Your task to perform on an android device: Open Google Chrome Image 0: 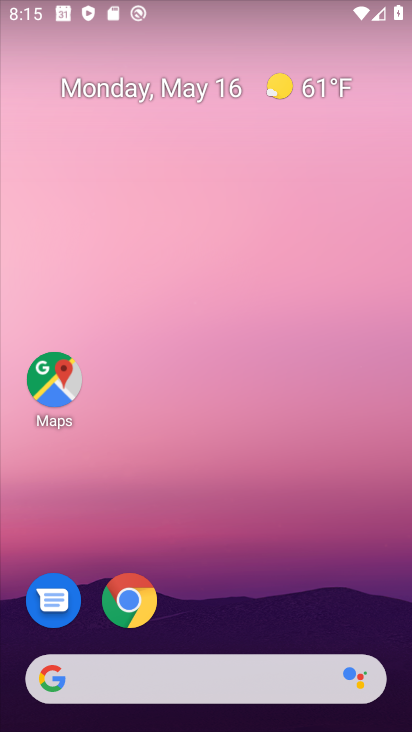
Step 0: click (126, 598)
Your task to perform on an android device: Open Google Chrome Image 1: 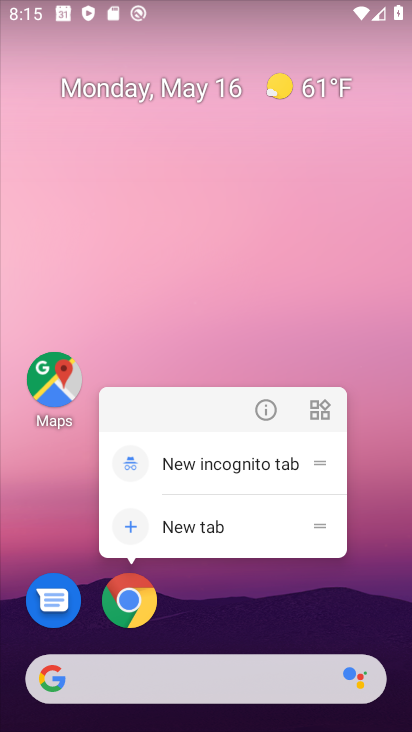
Step 1: click (123, 591)
Your task to perform on an android device: Open Google Chrome Image 2: 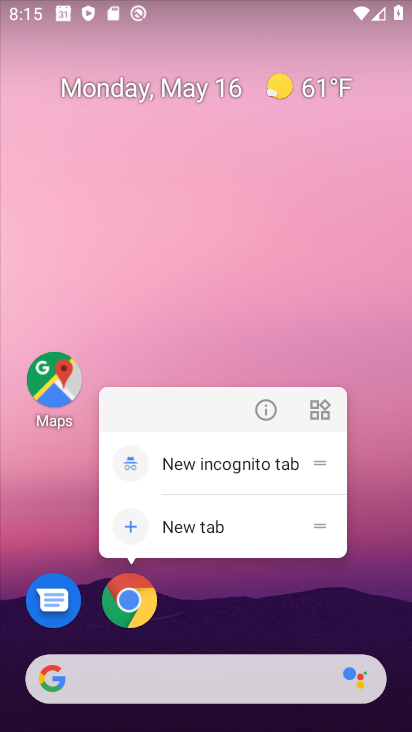
Step 2: click (125, 587)
Your task to perform on an android device: Open Google Chrome Image 3: 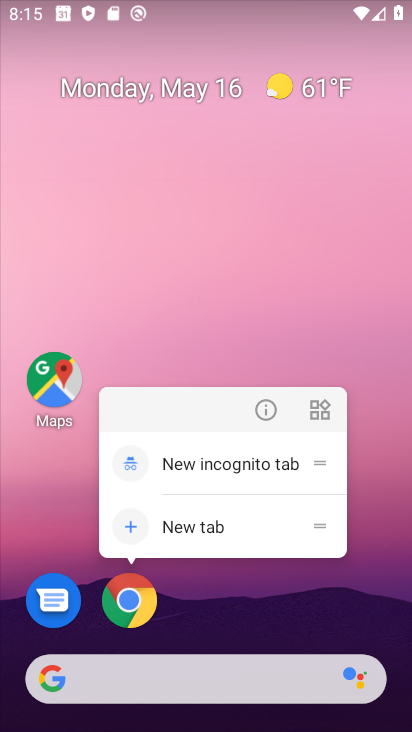
Step 3: click (123, 581)
Your task to perform on an android device: Open Google Chrome Image 4: 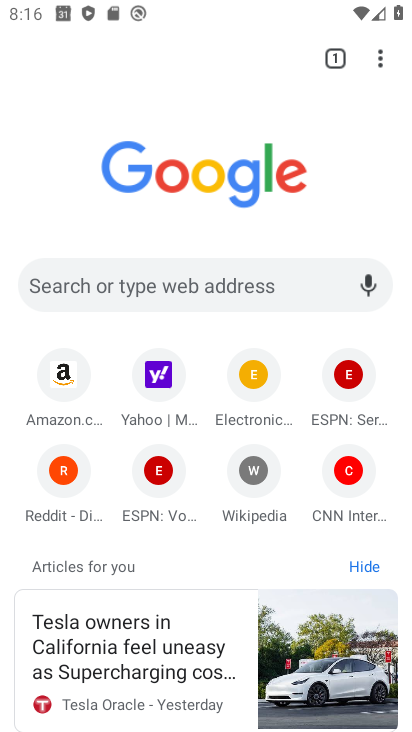
Step 4: task complete